Your task to perform on an android device: Open Google Chrome and open the bookmarks view Image 0: 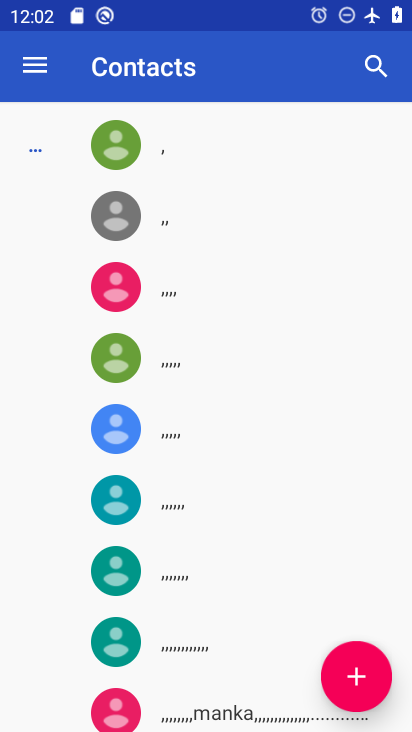
Step 0: press home button
Your task to perform on an android device: Open Google Chrome and open the bookmarks view Image 1: 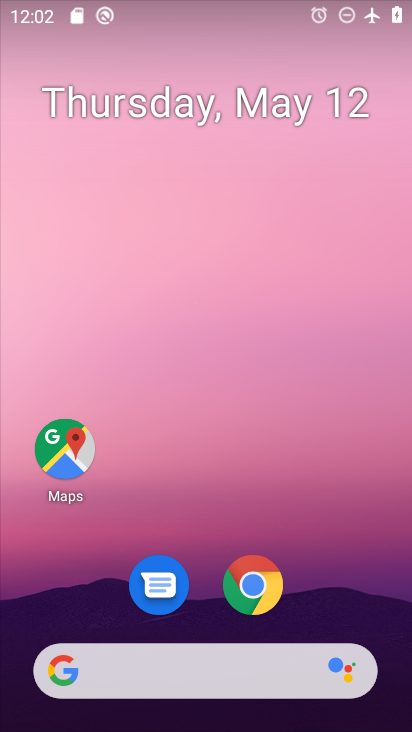
Step 1: click (261, 583)
Your task to perform on an android device: Open Google Chrome and open the bookmarks view Image 2: 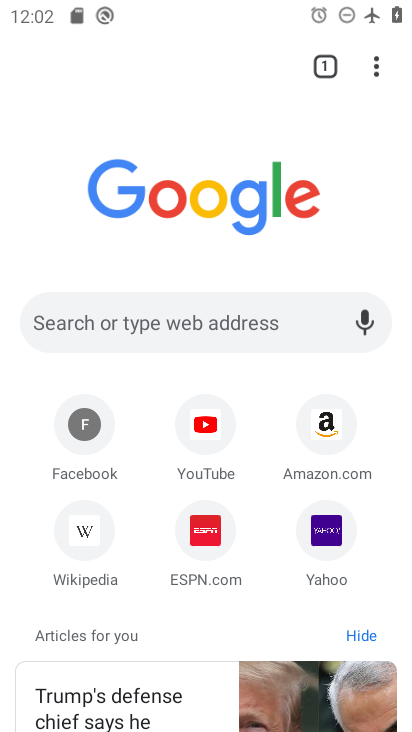
Step 2: click (373, 62)
Your task to perform on an android device: Open Google Chrome and open the bookmarks view Image 3: 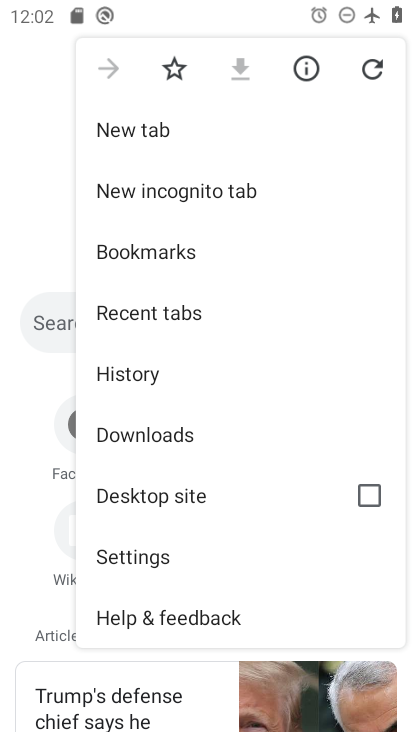
Step 3: click (230, 251)
Your task to perform on an android device: Open Google Chrome and open the bookmarks view Image 4: 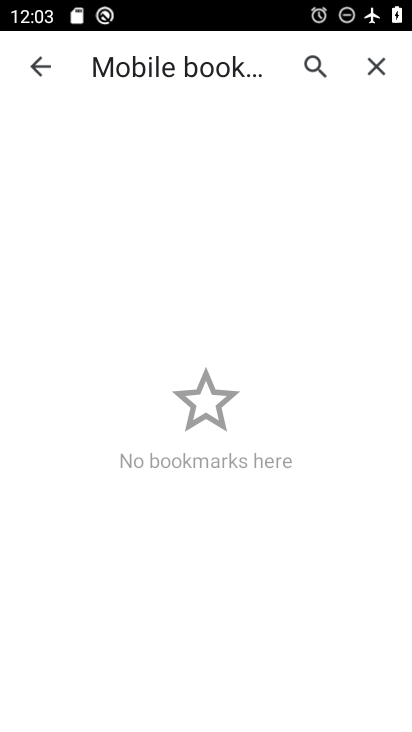
Step 4: task complete